Your task to perform on an android device: turn off picture-in-picture Image 0: 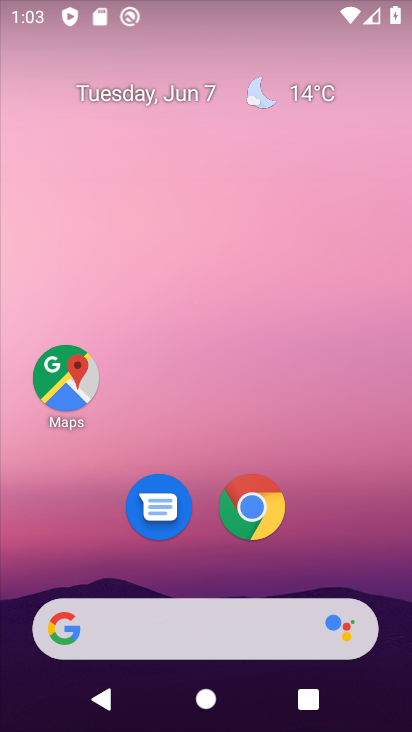
Step 0: click (254, 497)
Your task to perform on an android device: turn off picture-in-picture Image 1: 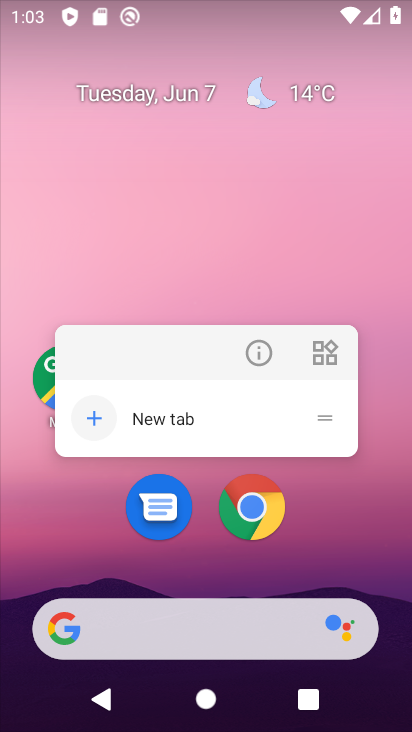
Step 1: click (260, 350)
Your task to perform on an android device: turn off picture-in-picture Image 2: 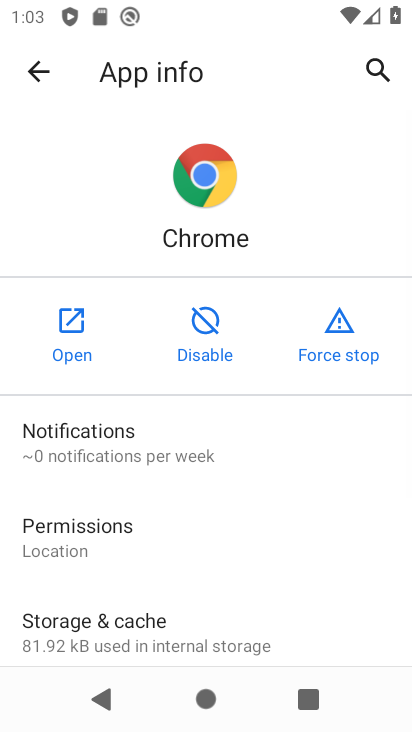
Step 2: drag from (118, 607) to (186, 48)
Your task to perform on an android device: turn off picture-in-picture Image 3: 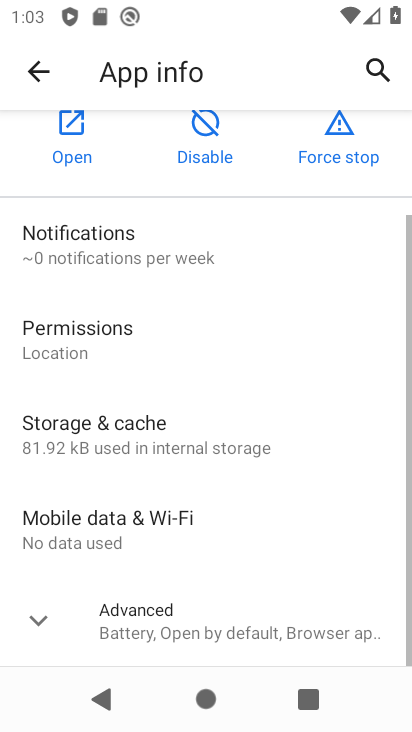
Step 3: click (170, 620)
Your task to perform on an android device: turn off picture-in-picture Image 4: 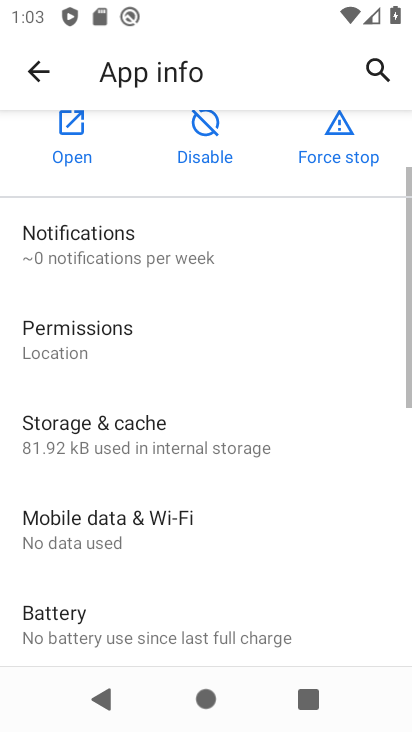
Step 4: drag from (207, 538) to (223, 96)
Your task to perform on an android device: turn off picture-in-picture Image 5: 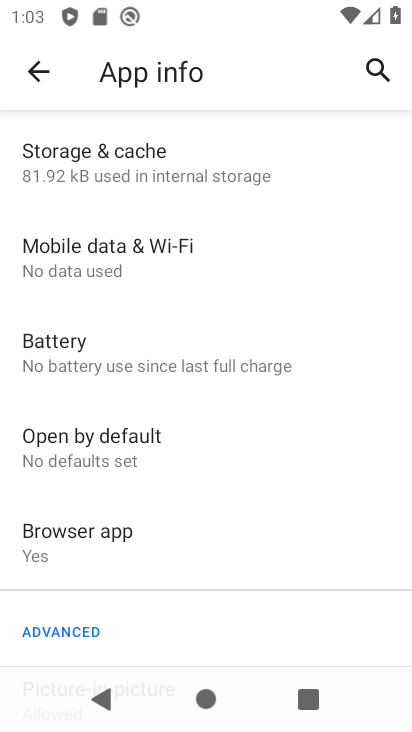
Step 5: drag from (171, 575) to (173, 92)
Your task to perform on an android device: turn off picture-in-picture Image 6: 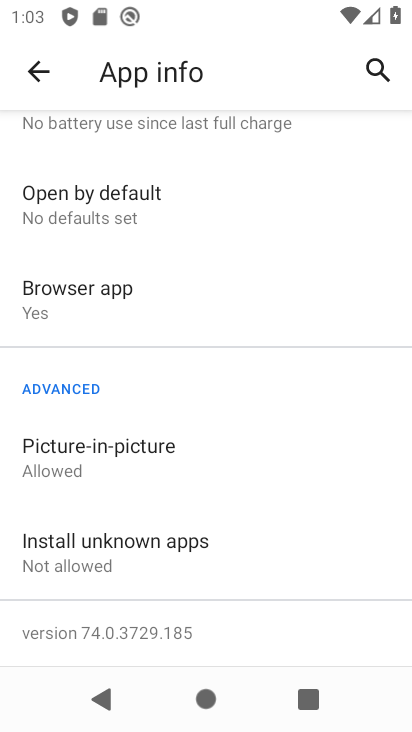
Step 6: click (153, 458)
Your task to perform on an android device: turn off picture-in-picture Image 7: 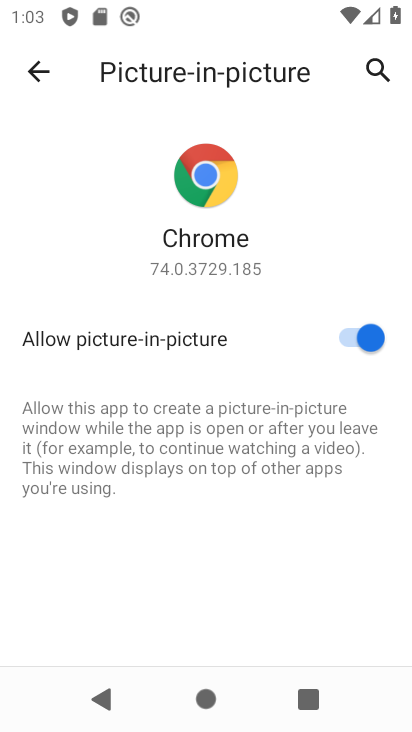
Step 7: click (358, 336)
Your task to perform on an android device: turn off picture-in-picture Image 8: 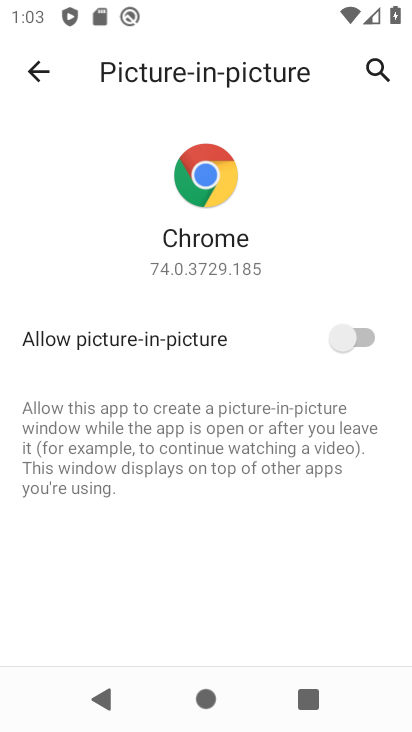
Step 8: task complete